Your task to perform on an android device: Go to notification settings Image 0: 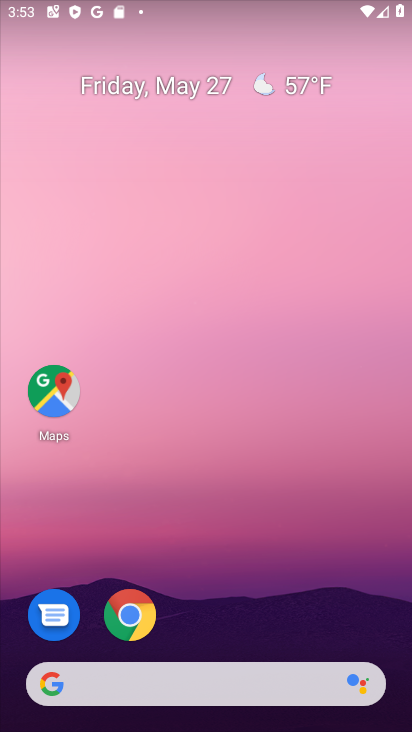
Step 0: drag from (224, 605) to (258, 95)
Your task to perform on an android device: Go to notification settings Image 1: 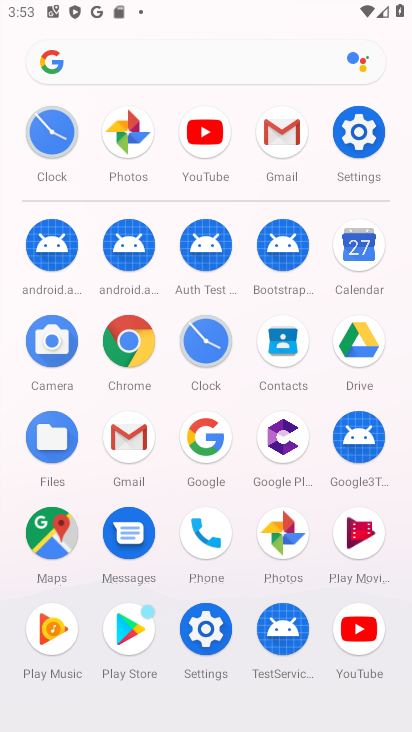
Step 1: click (353, 125)
Your task to perform on an android device: Go to notification settings Image 2: 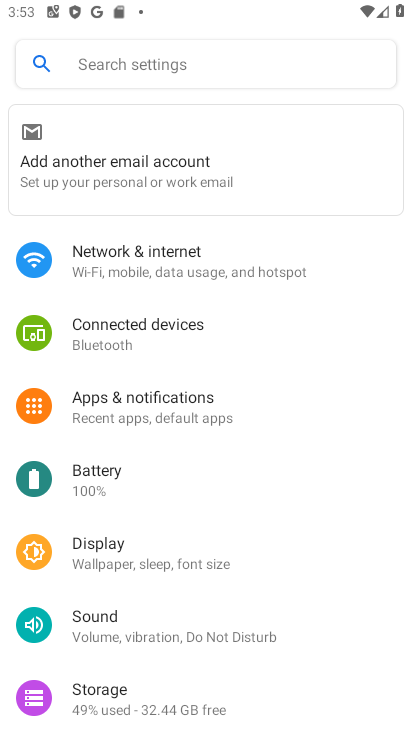
Step 2: click (142, 412)
Your task to perform on an android device: Go to notification settings Image 3: 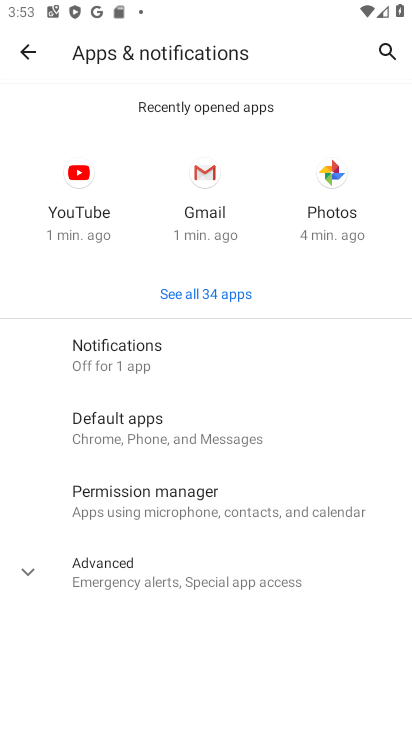
Step 3: click (113, 363)
Your task to perform on an android device: Go to notification settings Image 4: 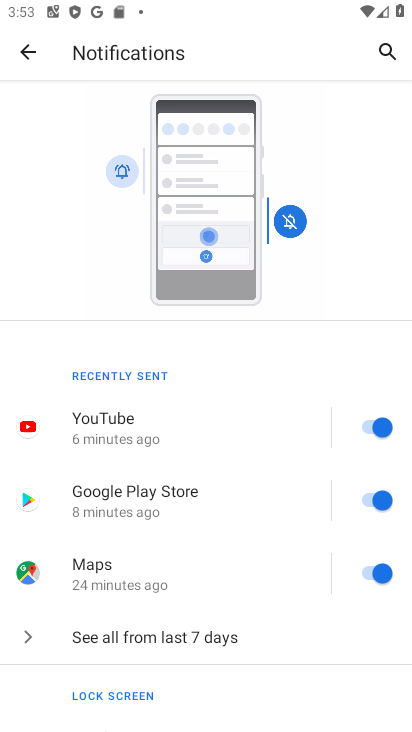
Step 4: task complete